Your task to perform on an android device: Show me the alarms in the clock app Image 0: 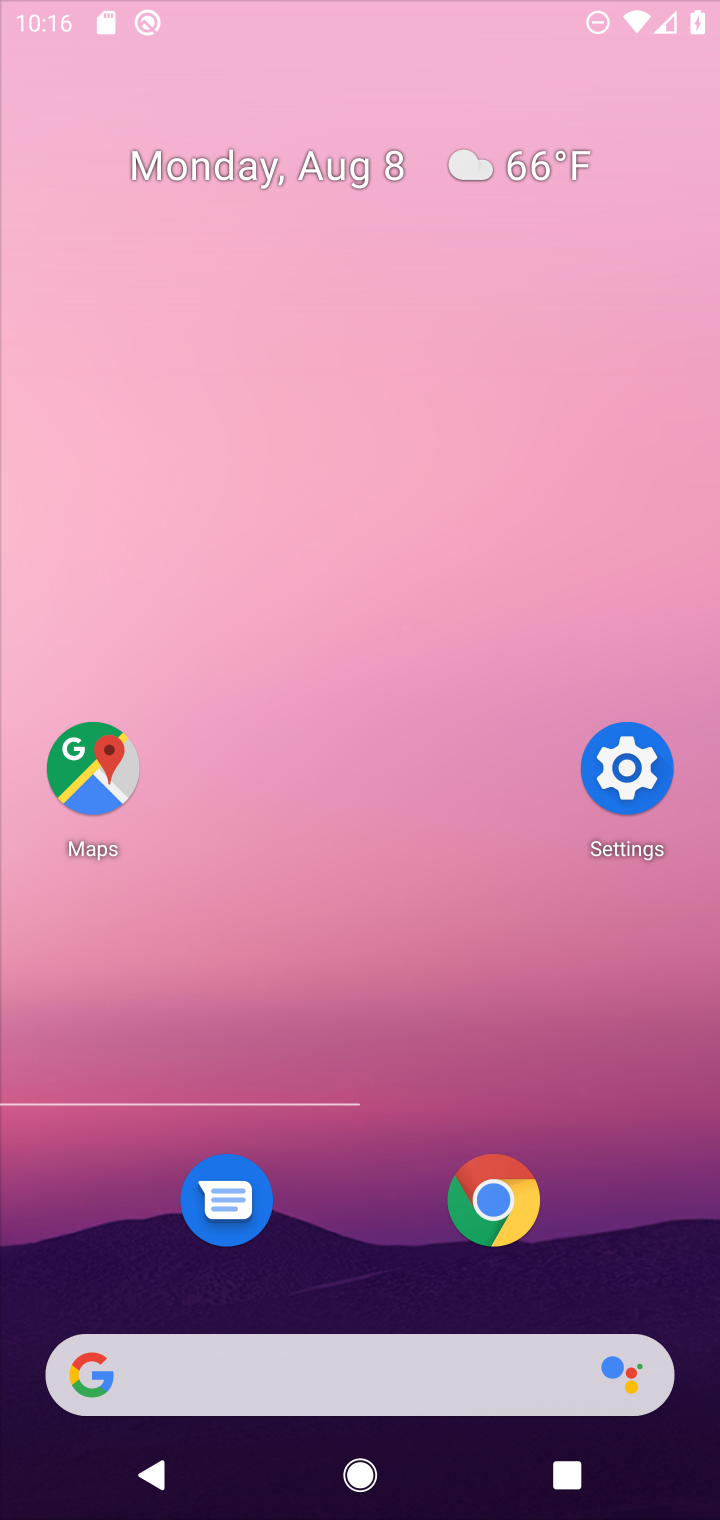
Step 0: press home button
Your task to perform on an android device: Show me the alarms in the clock app Image 1: 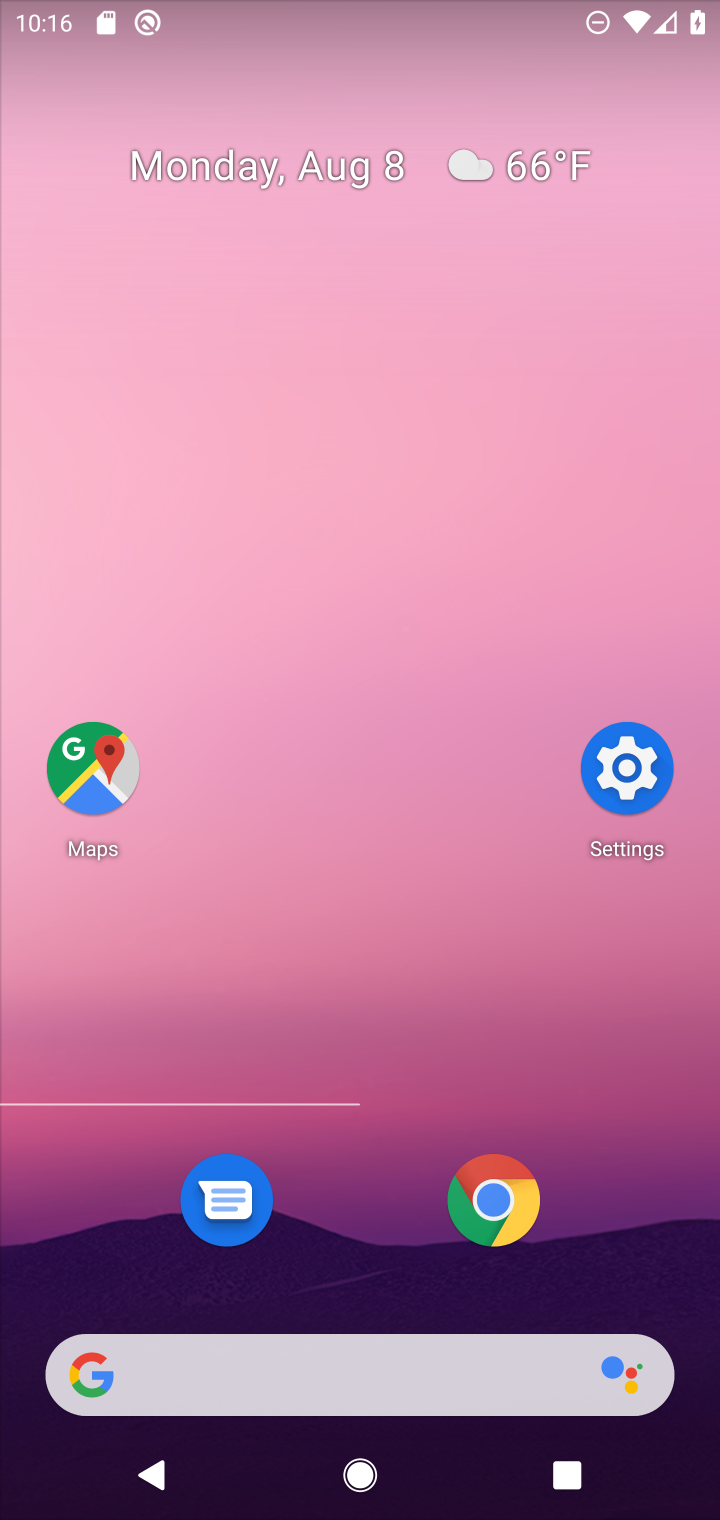
Step 1: click (623, 775)
Your task to perform on an android device: Show me the alarms in the clock app Image 2: 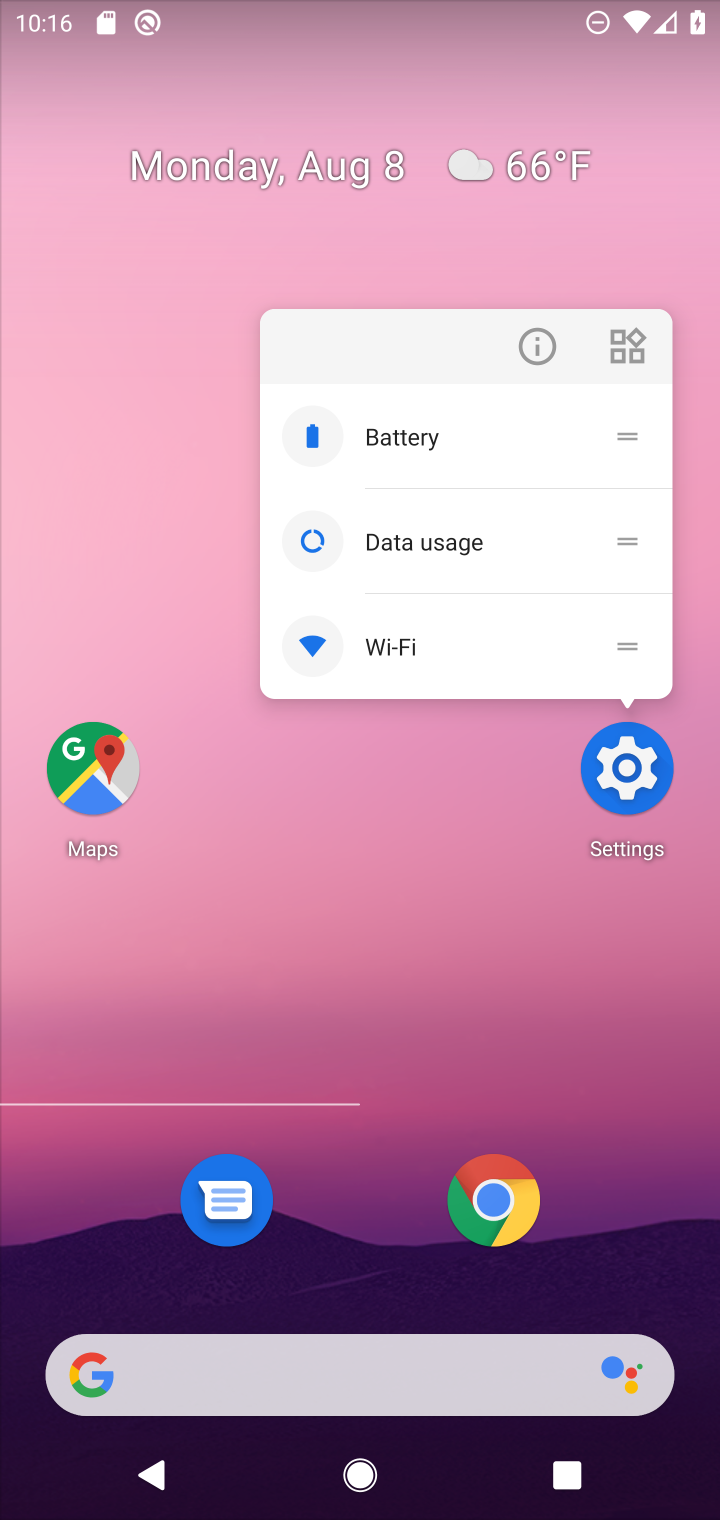
Step 2: drag from (428, 1380) to (687, 14)
Your task to perform on an android device: Show me the alarms in the clock app Image 3: 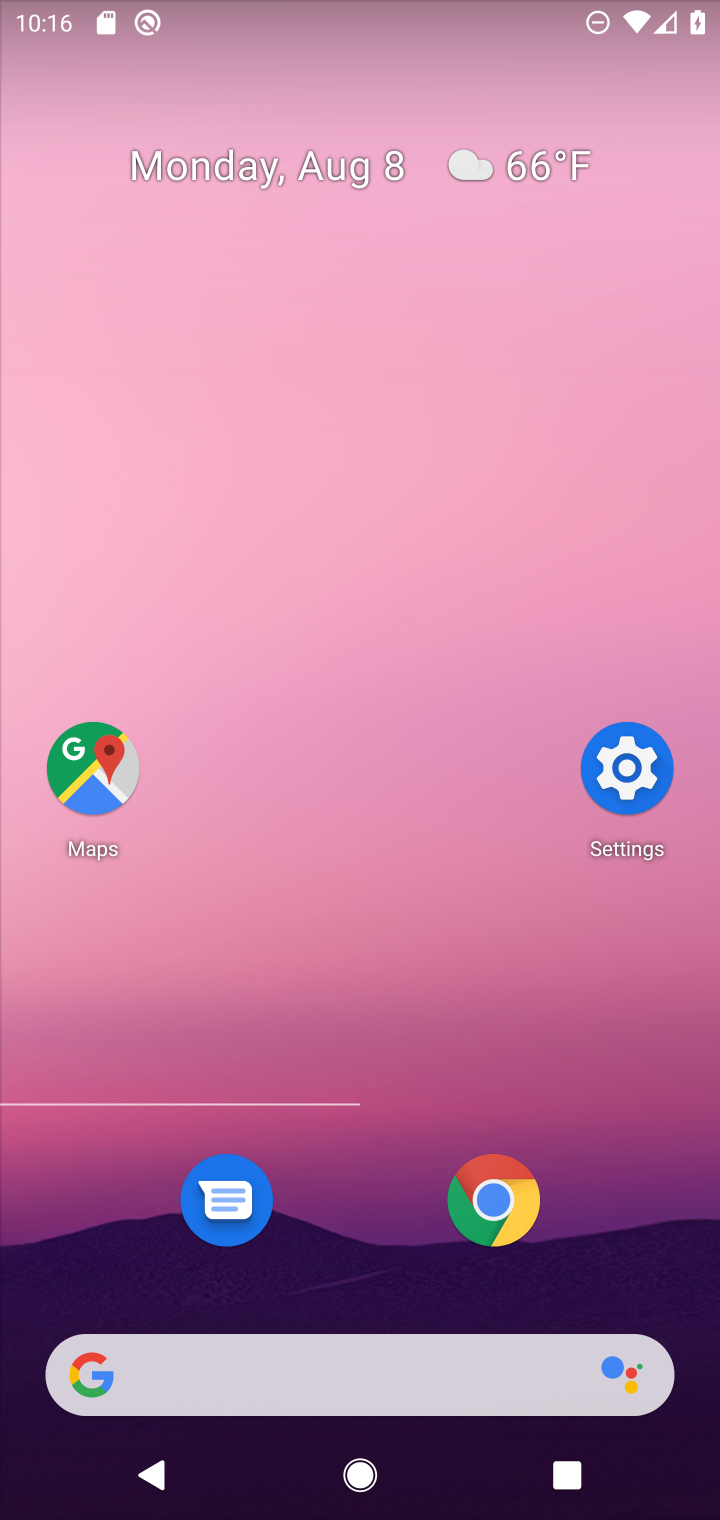
Step 3: drag from (316, 1303) to (529, 580)
Your task to perform on an android device: Show me the alarms in the clock app Image 4: 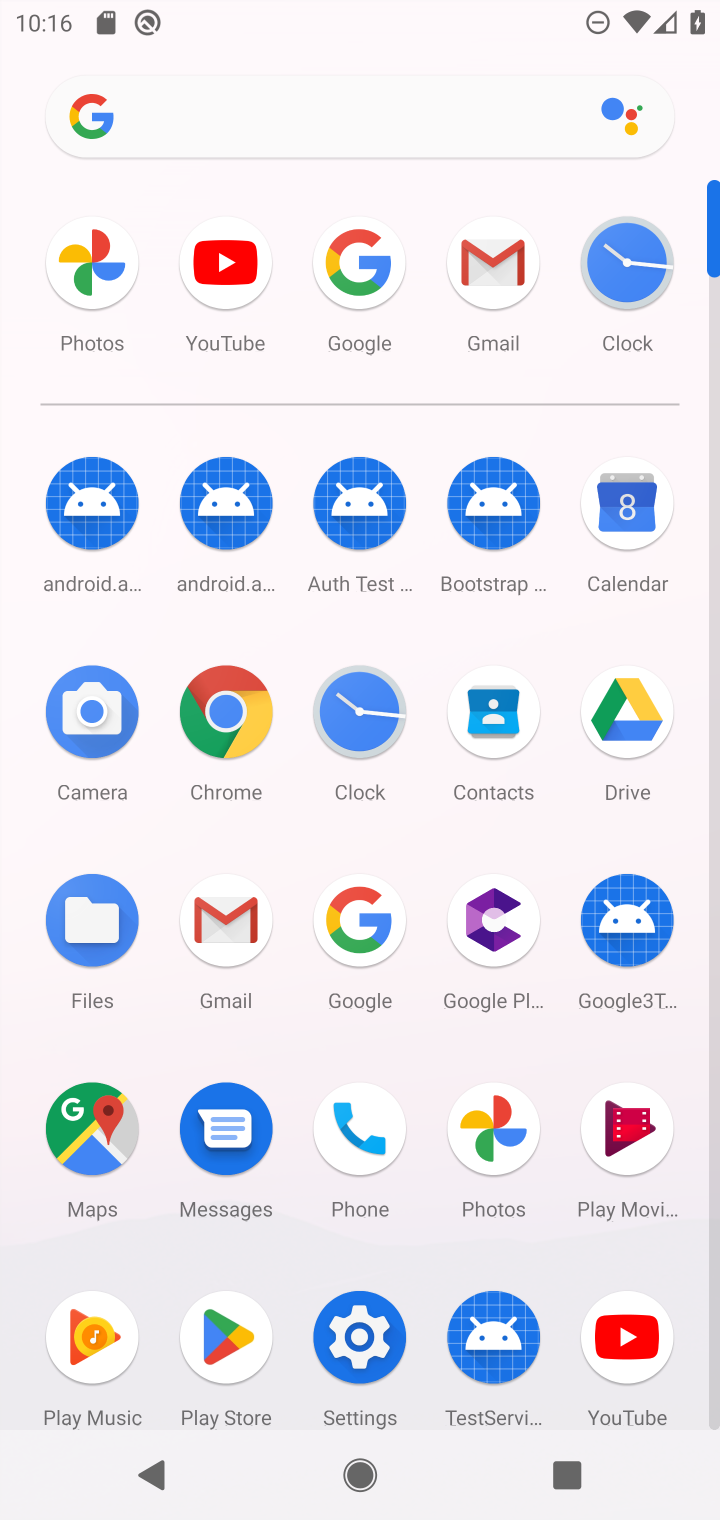
Step 4: click (633, 271)
Your task to perform on an android device: Show me the alarms in the clock app Image 5: 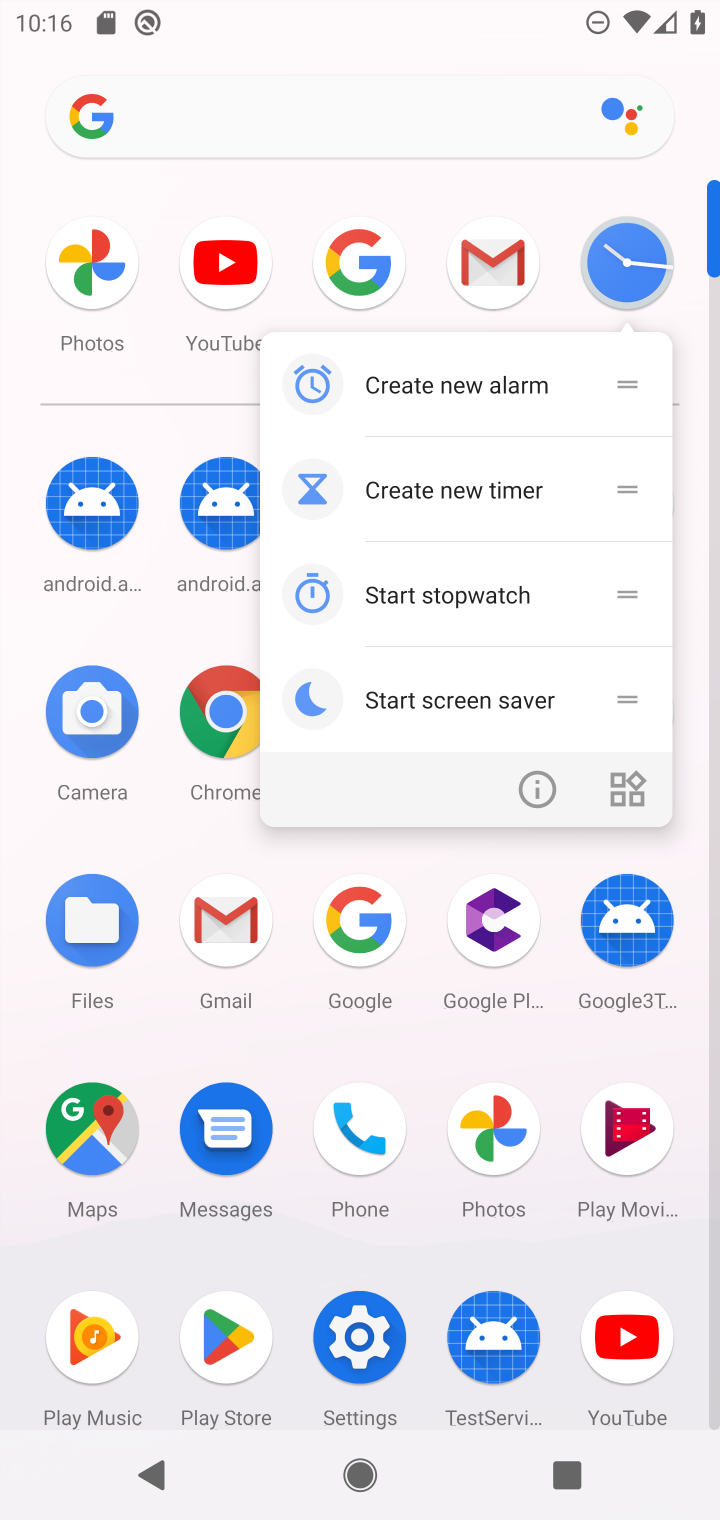
Step 5: click (625, 263)
Your task to perform on an android device: Show me the alarms in the clock app Image 6: 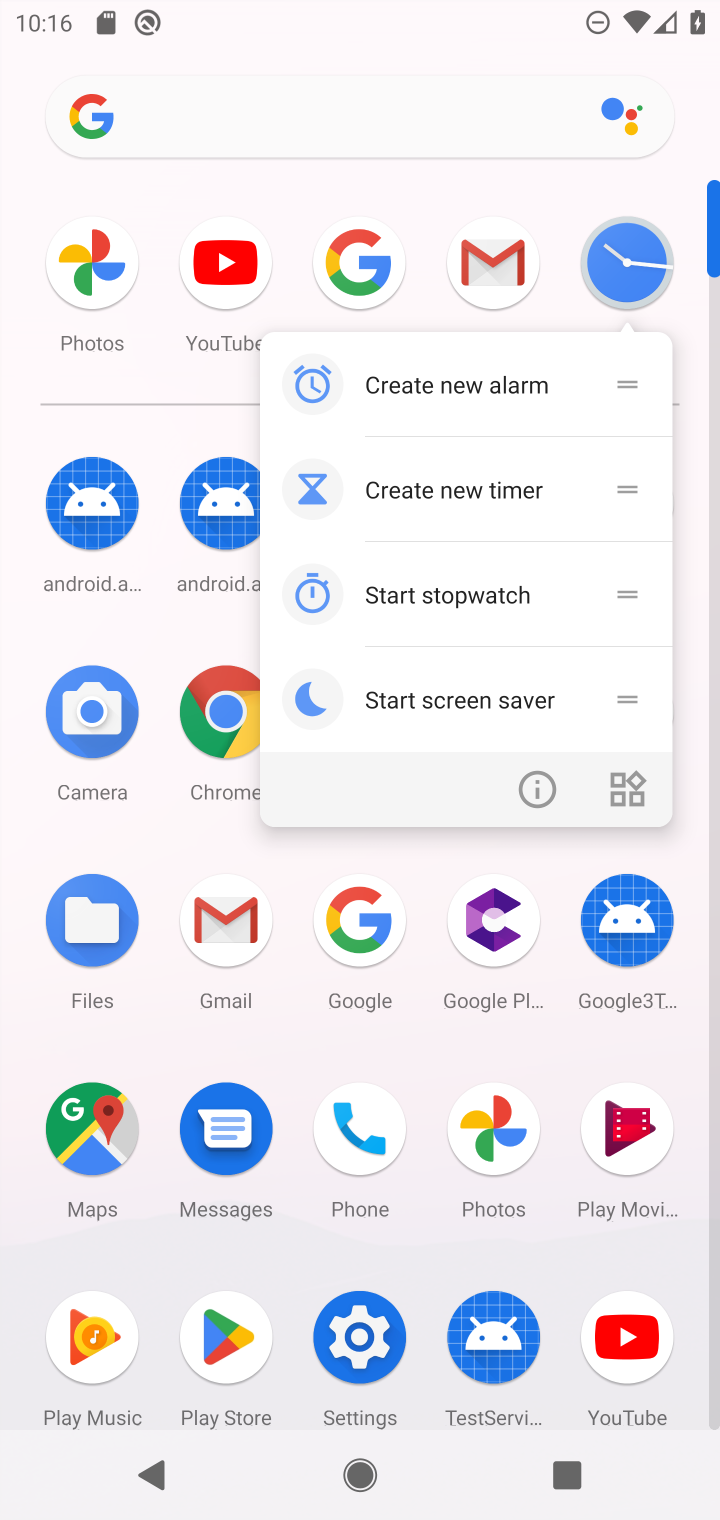
Step 6: click (625, 262)
Your task to perform on an android device: Show me the alarms in the clock app Image 7: 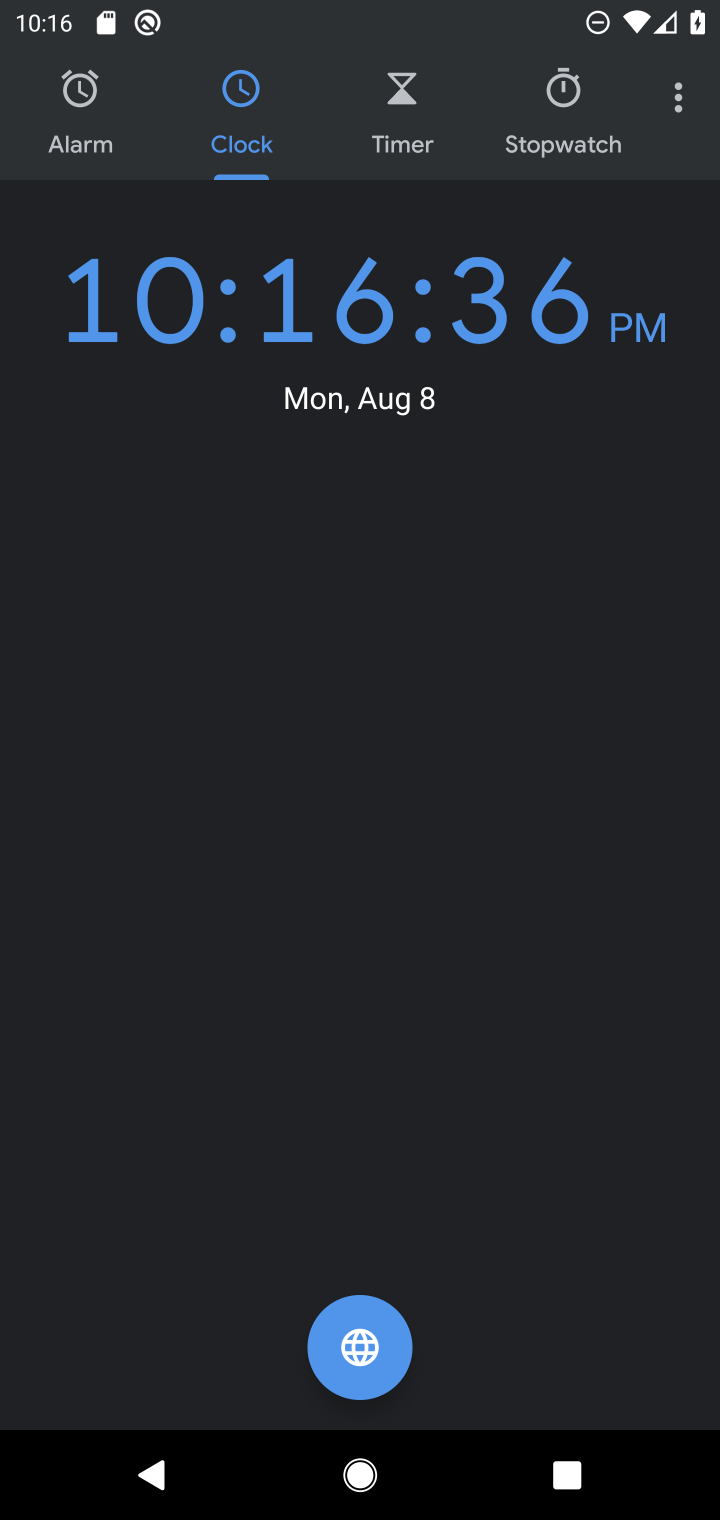
Step 7: click (678, 116)
Your task to perform on an android device: Show me the alarms in the clock app Image 8: 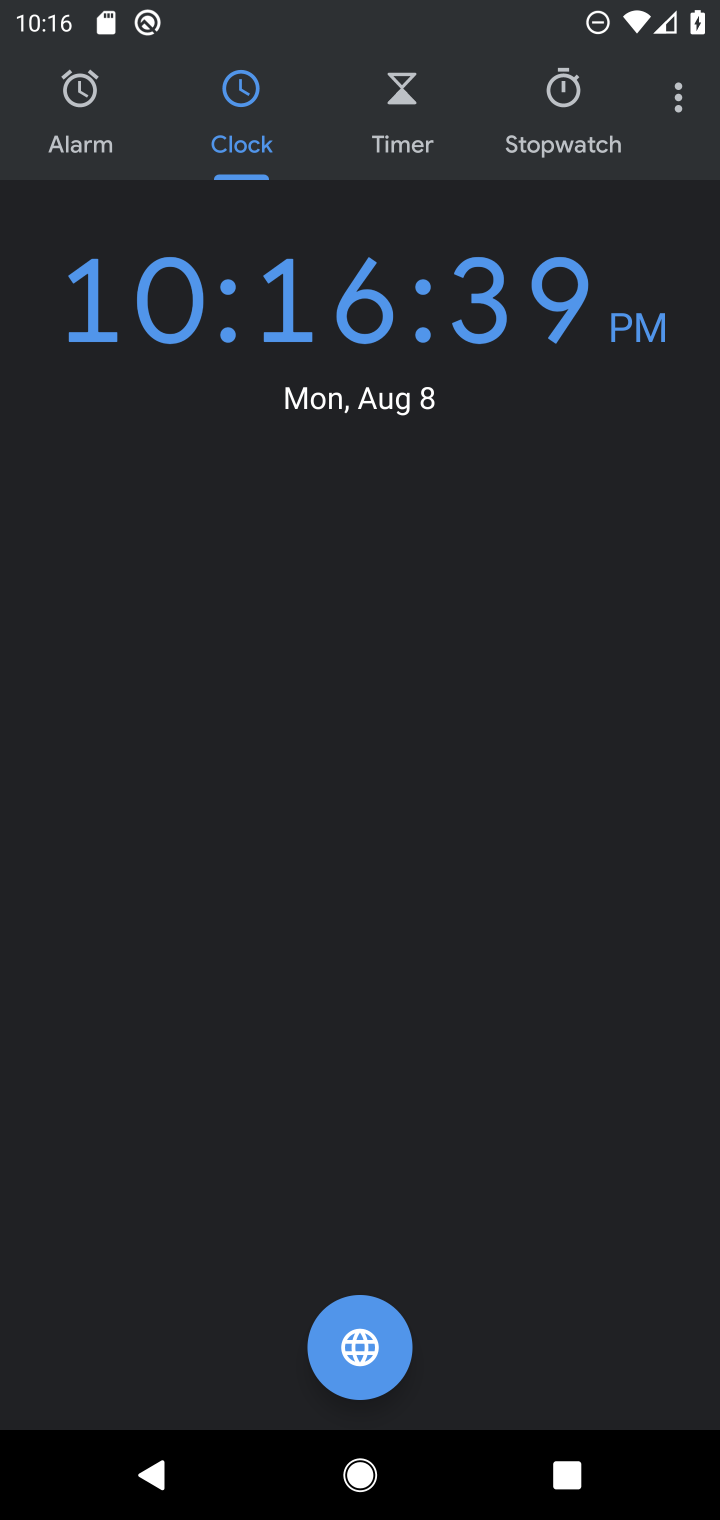
Step 8: click (676, 112)
Your task to perform on an android device: Show me the alarms in the clock app Image 9: 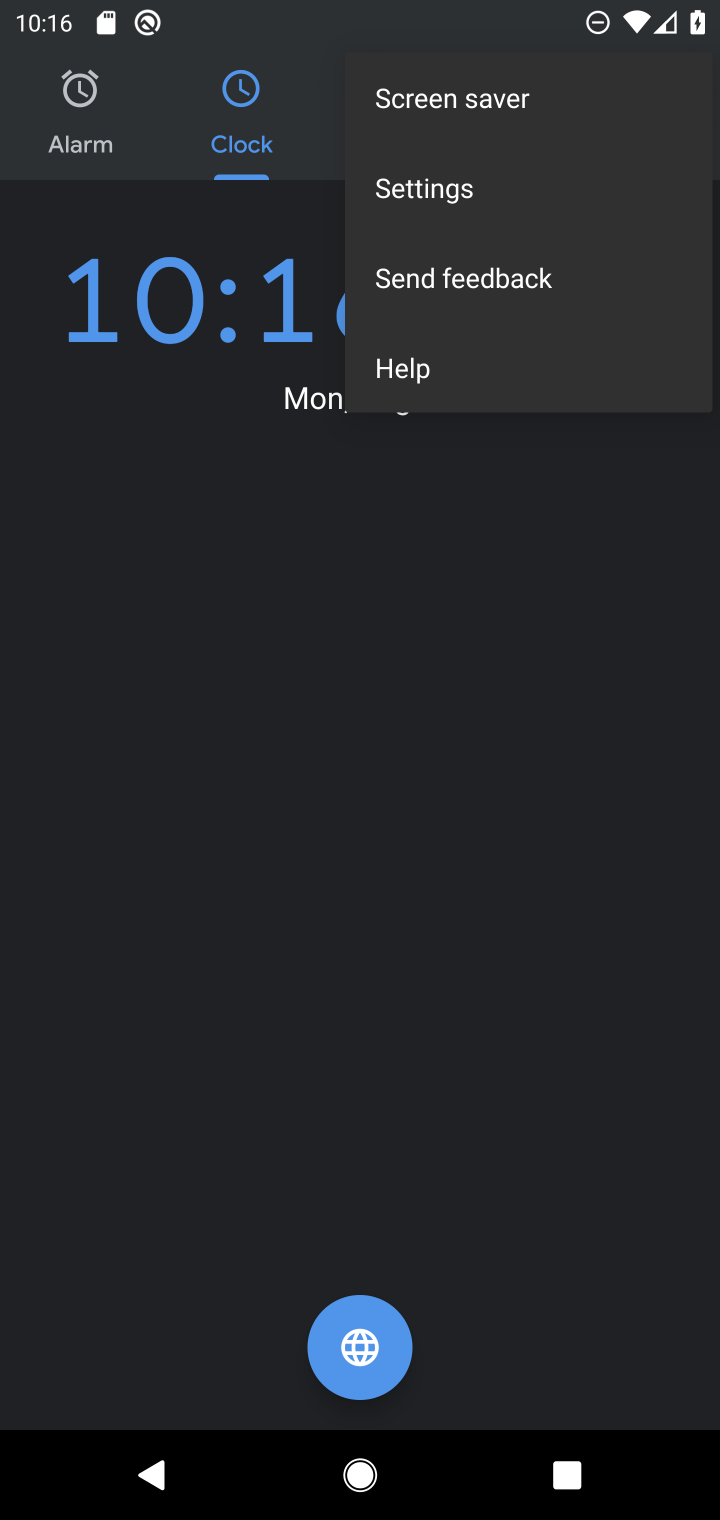
Step 9: click (446, 194)
Your task to perform on an android device: Show me the alarms in the clock app Image 10: 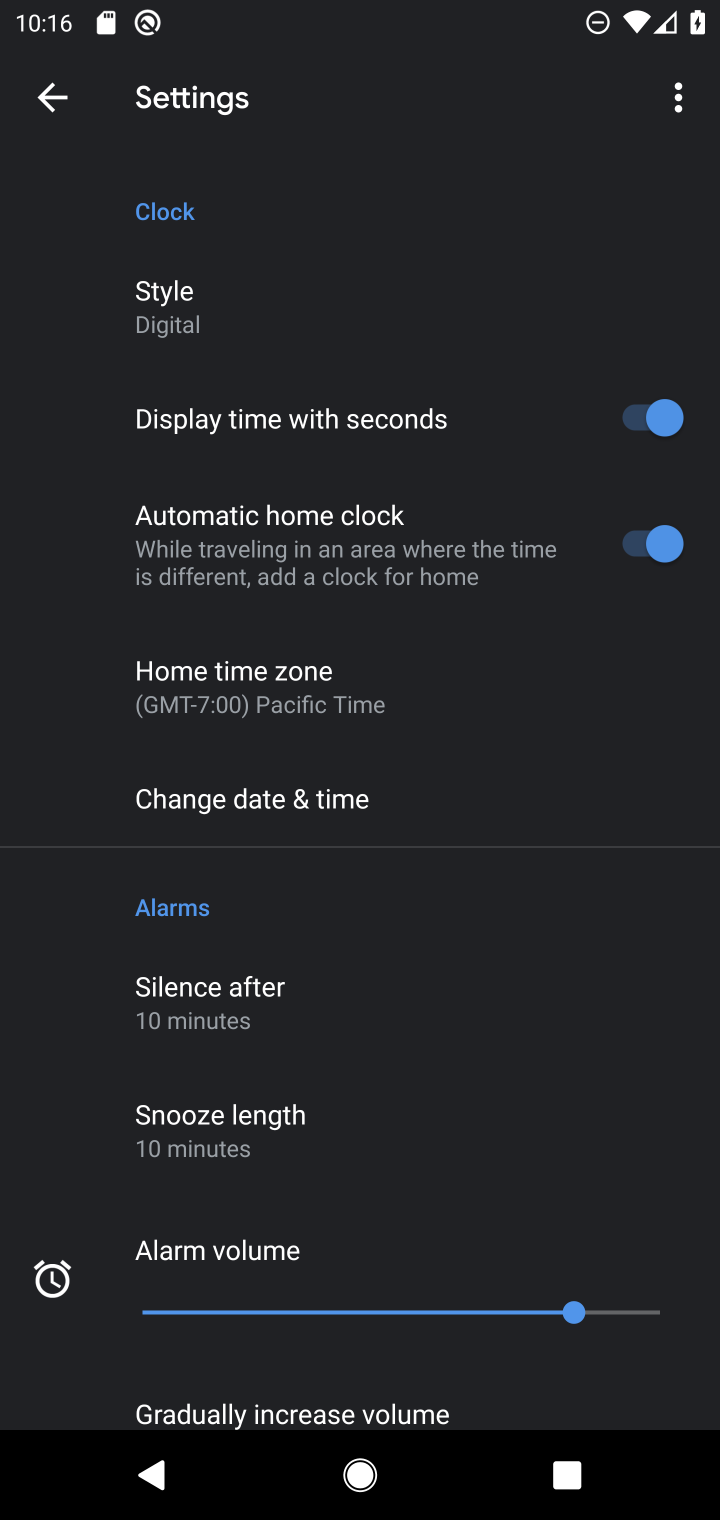
Step 10: click (40, 99)
Your task to perform on an android device: Show me the alarms in the clock app Image 11: 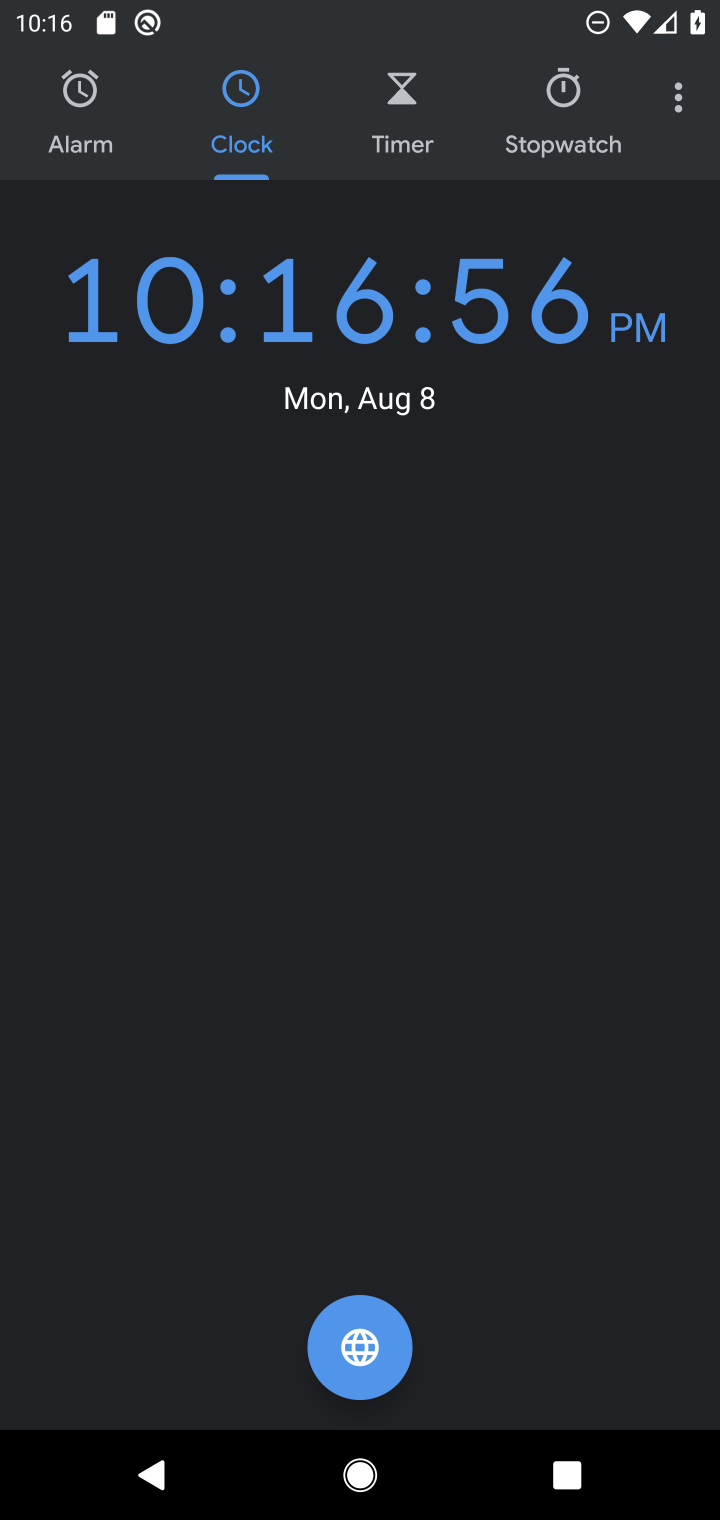
Step 11: click (64, 114)
Your task to perform on an android device: Show me the alarms in the clock app Image 12: 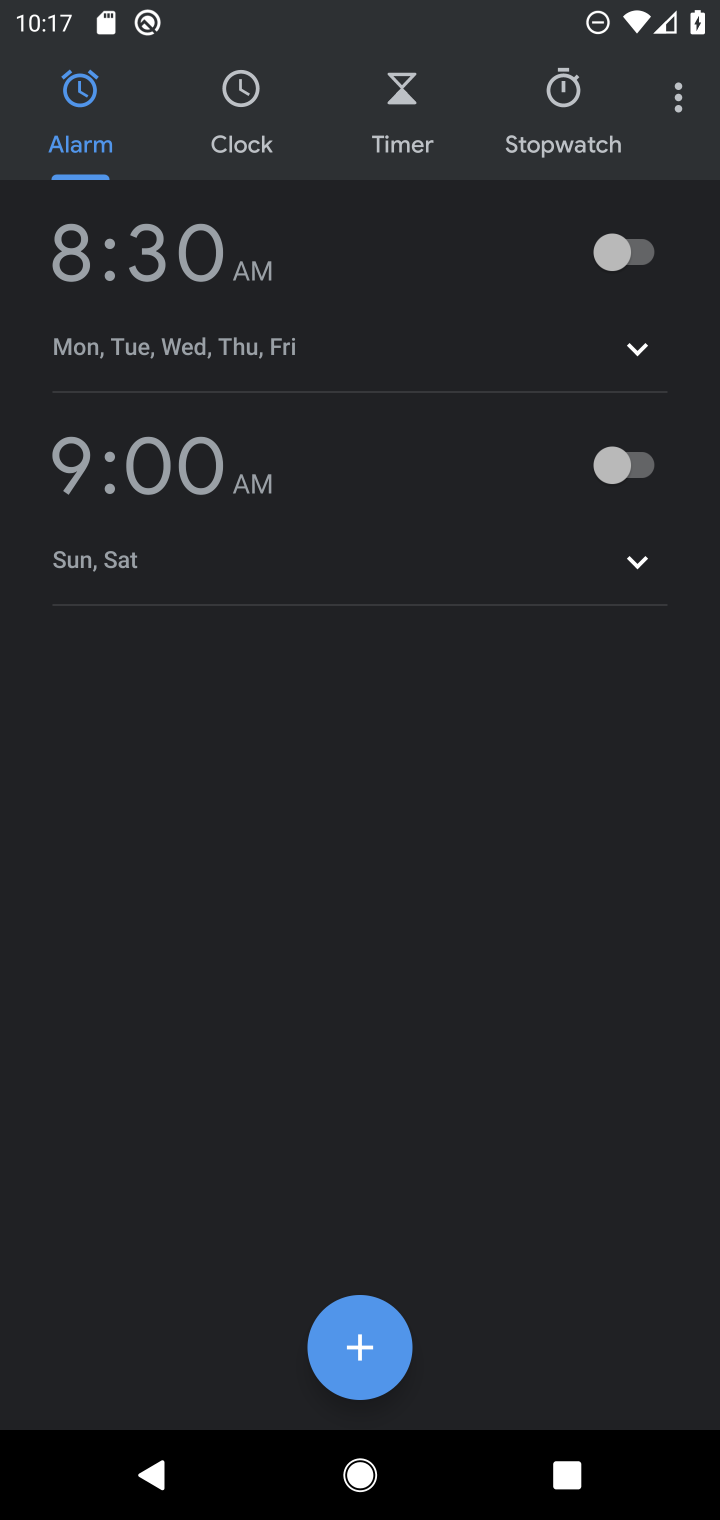
Step 12: task complete